Your task to perform on an android device: Show me popular videos on Youtube Image 0: 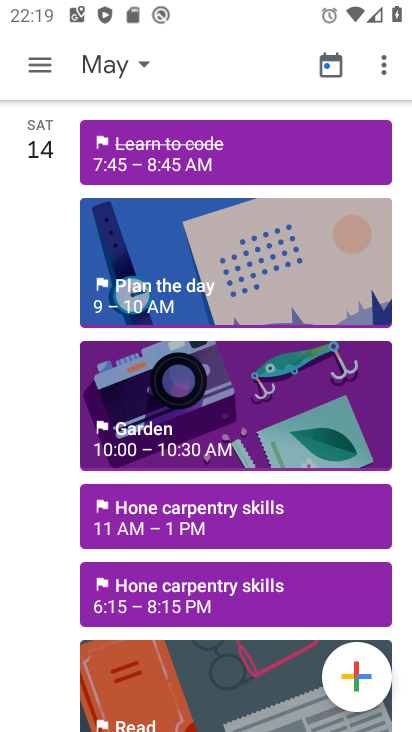
Step 0: press home button
Your task to perform on an android device: Show me popular videos on Youtube Image 1: 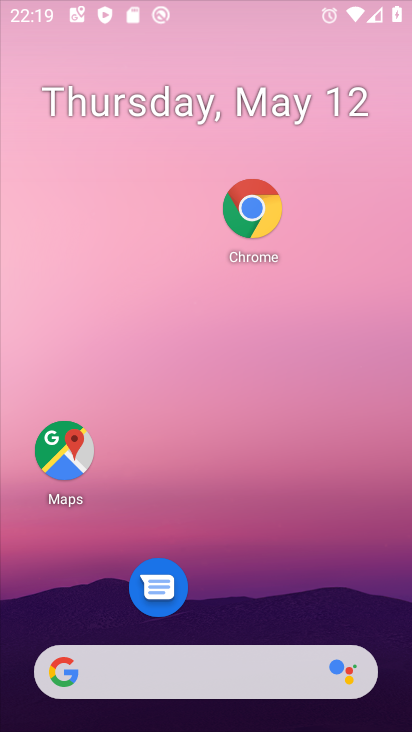
Step 1: drag from (324, 648) to (231, 214)
Your task to perform on an android device: Show me popular videos on Youtube Image 2: 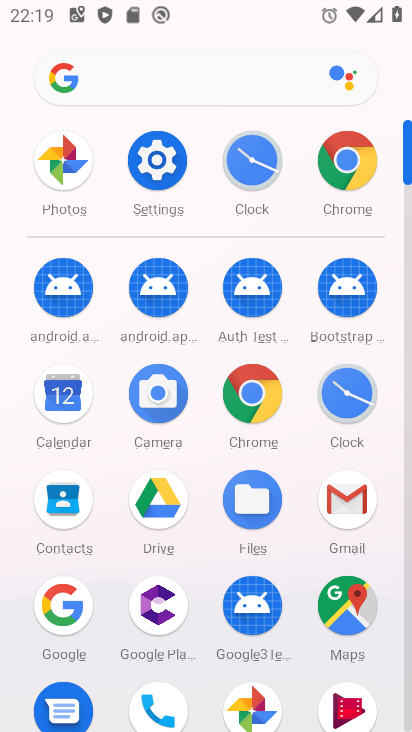
Step 2: drag from (304, 641) to (231, 149)
Your task to perform on an android device: Show me popular videos on Youtube Image 3: 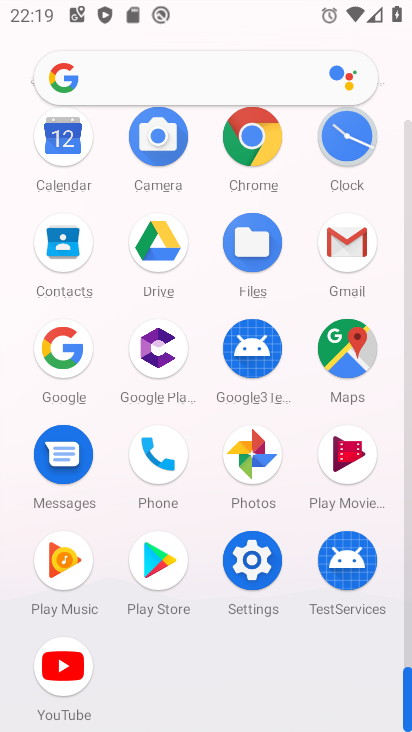
Step 3: click (71, 657)
Your task to perform on an android device: Show me popular videos on Youtube Image 4: 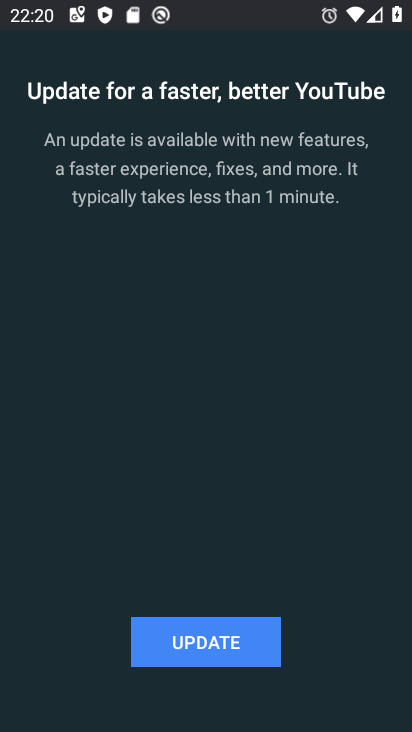
Step 4: task complete